Your task to perform on an android device: toggle data saver in the chrome app Image 0: 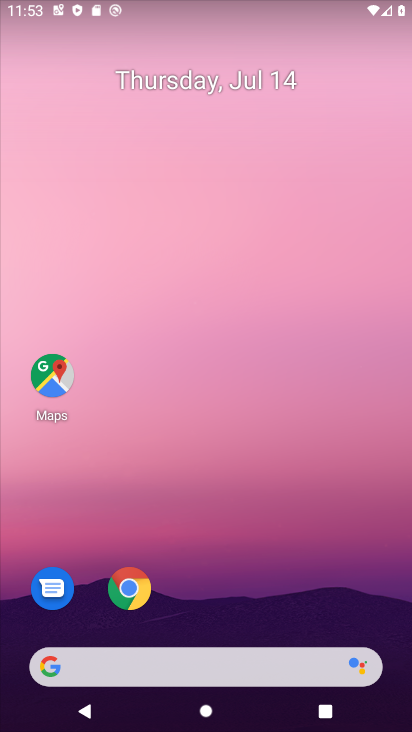
Step 0: click (135, 598)
Your task to perform on an android device: toggle data saver in the chrome app Image 1: 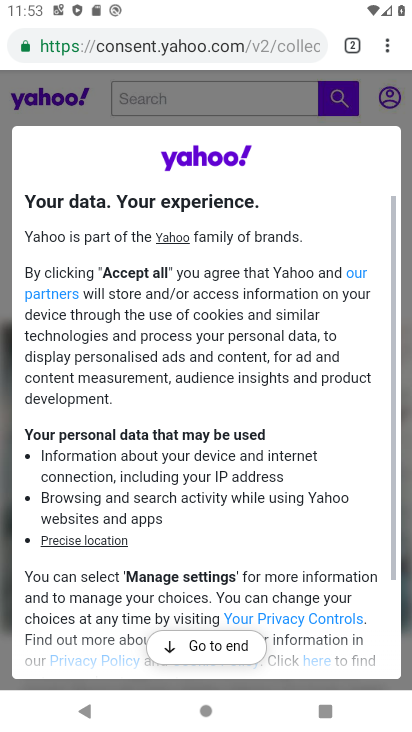
Step 1: click (391, 46)
Your task to perform on an android device: toggle data saver in the chrome app Image 2: 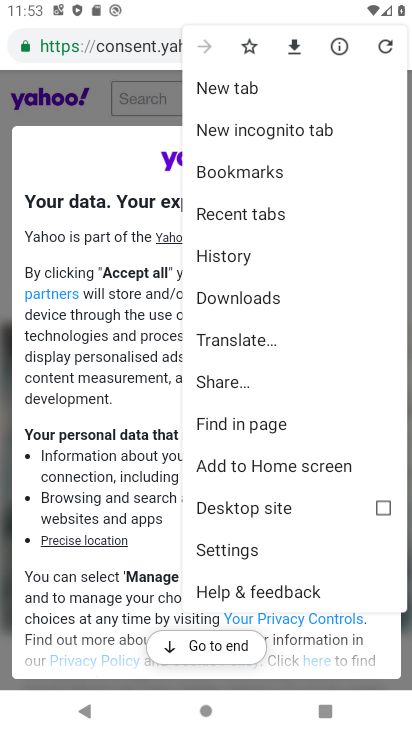
Step 2: click (247, 548)
Your task to perform on an android device: toggle data saver in the chrome app Image 3: 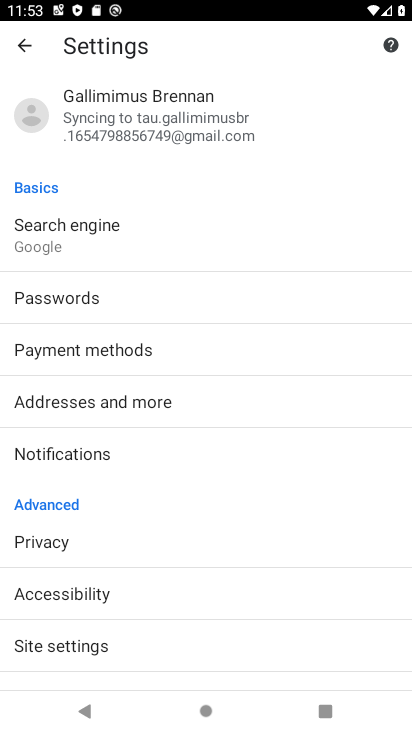
Step 3: drag from (191, 610) to (280, 73)
Your task to perform on an android device: toggle data saver in the chrome app Image 4: 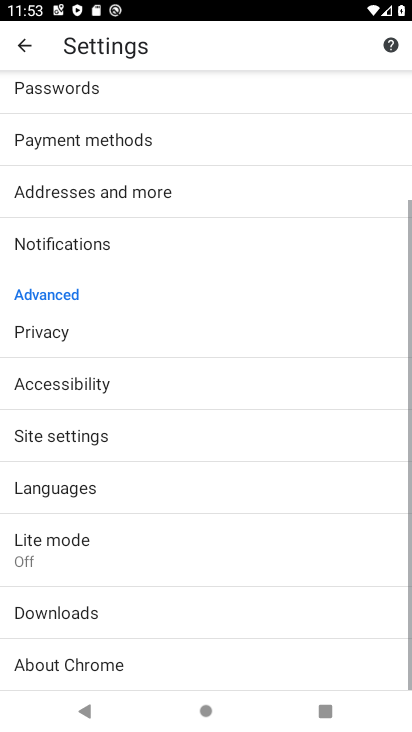
Step 4: click (30, 546)
Your task to perform on an android device: toggle data saver in the chrome app Image 5: 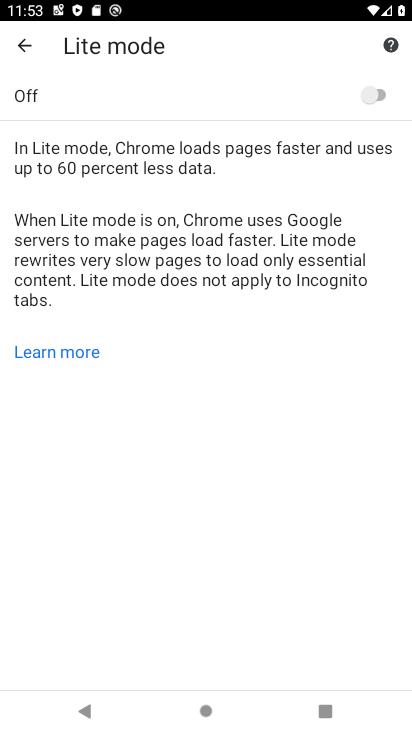
Step 5: click (374, 93)
Your task to perform on an android device: toggle data saver in the chrome app Image 6: 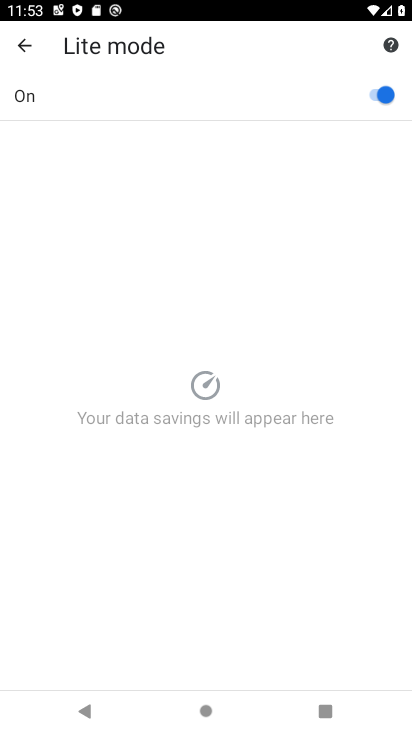
Step 6: task complete